Your task to perform on an android device: Show me the alarms in the clock app Image 0: 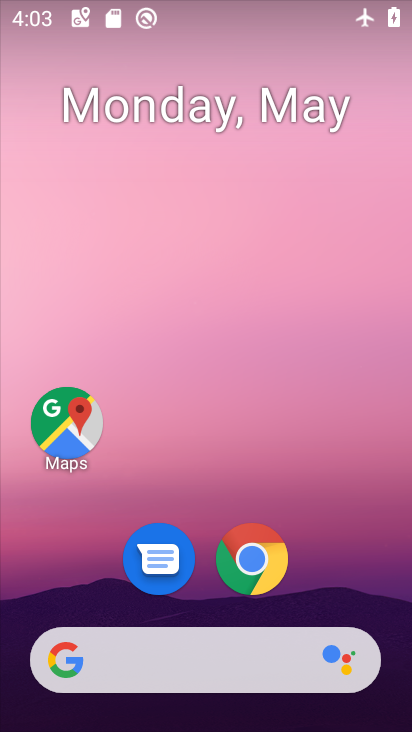
Step 0: drag from (305, 590) to (205, 0)
Your task to perform on an android device: Show me the alarms in the clock app Image 1: 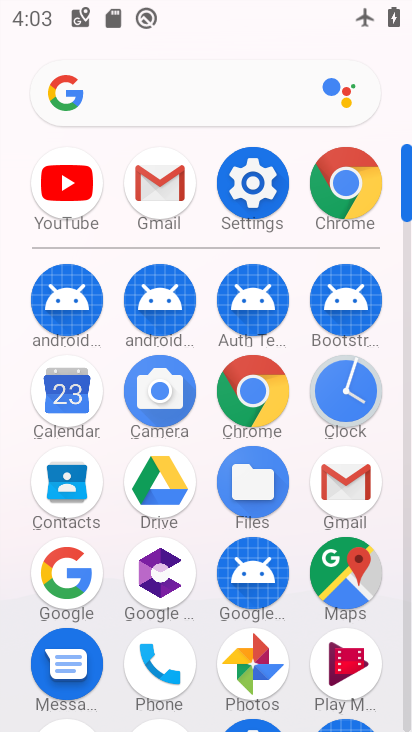
Step 1: click (346, 410)
Your task to perform on an android device: Show me the alarms in the clock app Image 2: 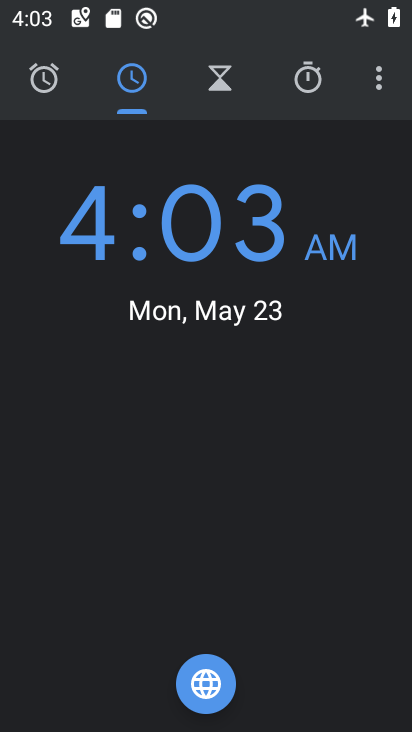
Step 2: click (49, 90)
Your task to perform on an android device: Show me the alarms in the clock app Image 3: 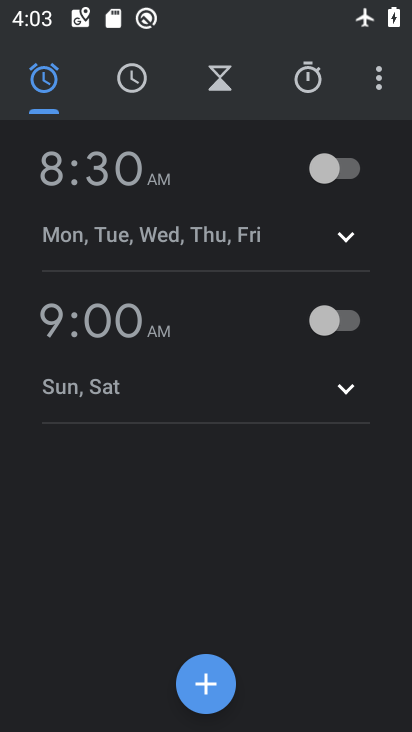
Step 3: task complete